Your task to perform on an android device: search for starred emails in the gmail app Image 0: 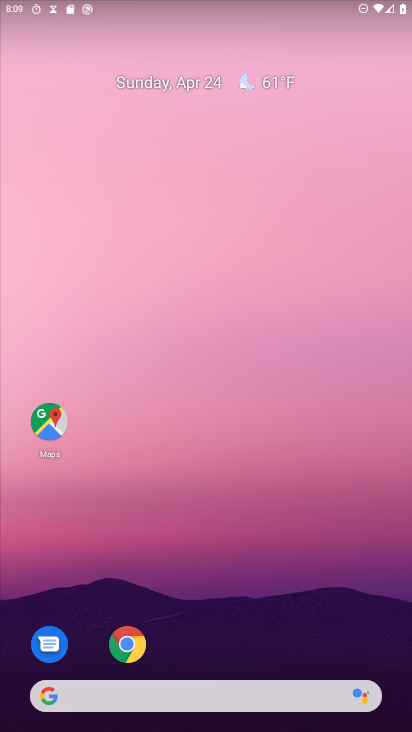
Step 0: drag from (192, 680) to (140, 107)
Your task to perform on an android device: search for starred emails in the gmail app Image 1: 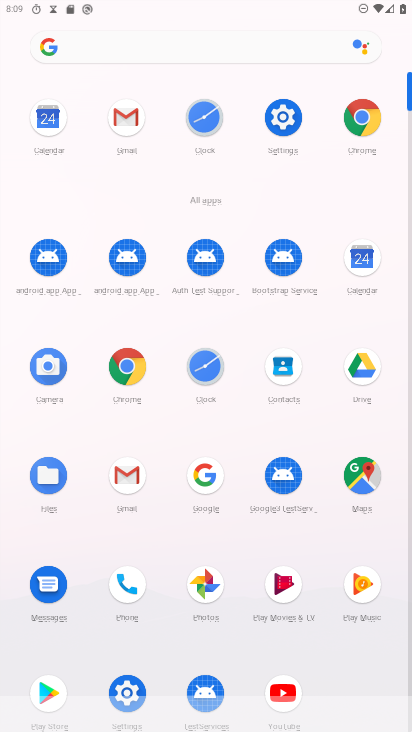
Step 1: click (141, 477)
Your task to perform on an android device: search for starred emails in the gmail app Image 2: 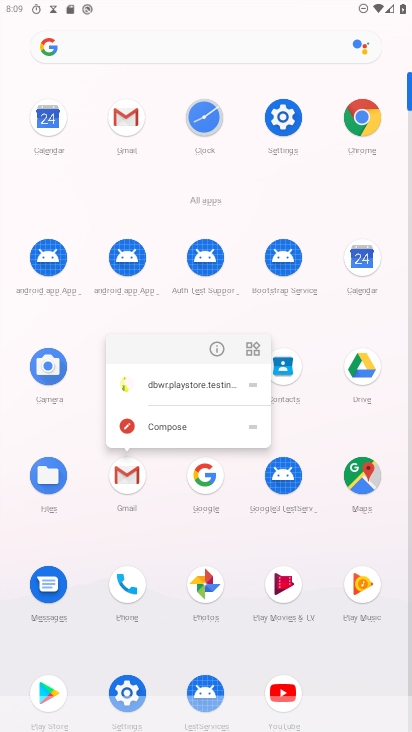
Step 2: click (125, 479)
Your task to perform on an android device: search for starred emails in the gmail app Image 3: 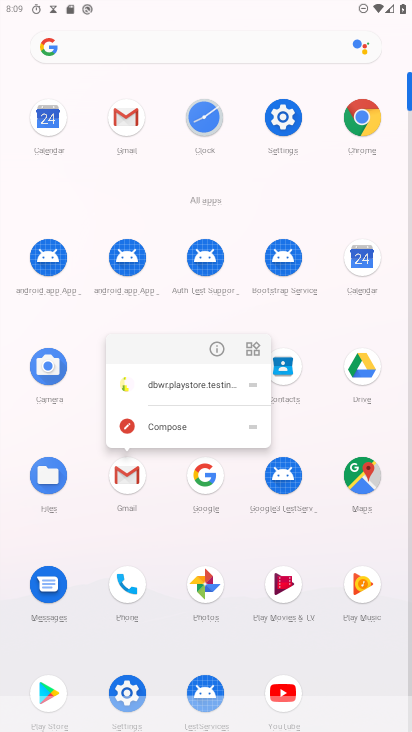
Step 3: click (125, 479)
Your task to perform on an android device: search for starred emails in the gmail app Image 4: 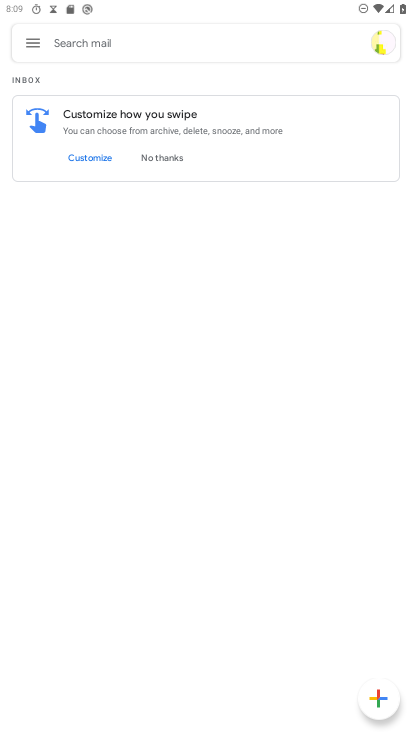
Step 4: click (35, 51)
Your task to perform on an android device: search for starred emails in the gmail app Image 5: 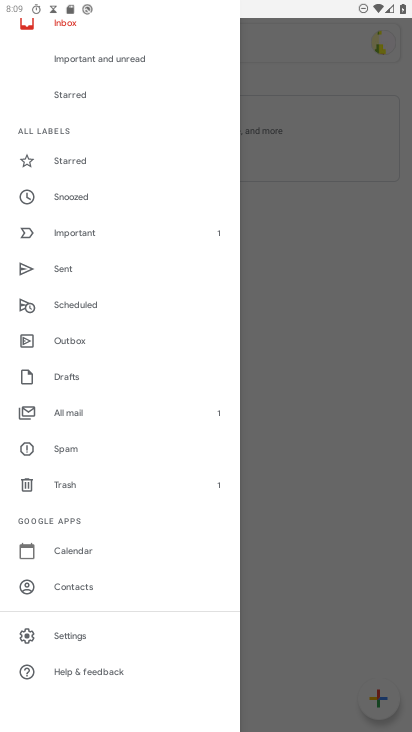
Step 5: click (81, 162)
Your task to perform on an android device: search for starred emails in the gmail app Image 6: 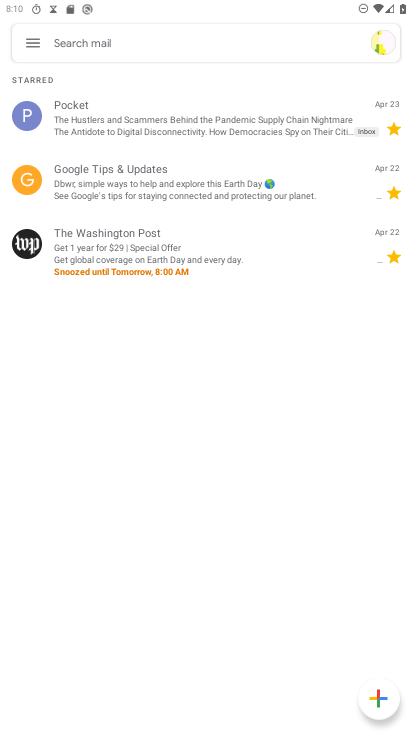
Step 6: task complete